Your task to perform on an android device: Open the Play Movies app and select the watchlist tab. Image 0: 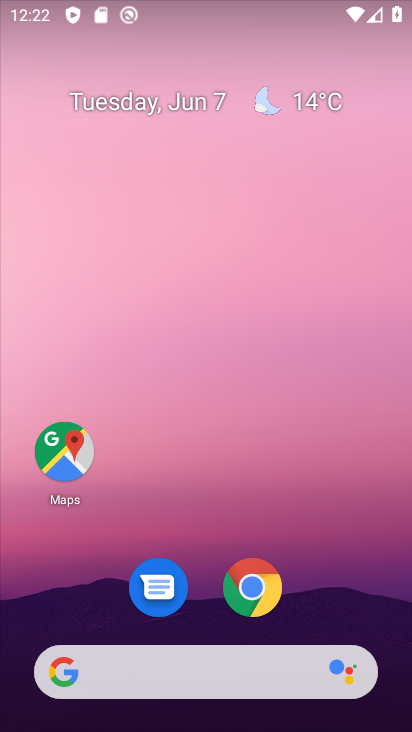
Step 0: drag from (250, 670) to (296, 207)
Your task to perform on an android device: Open the Play Movies app and select the watchlist tab. Image 1: 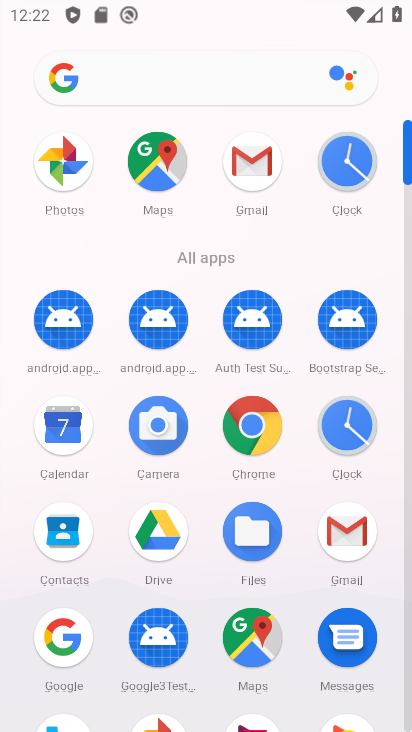
Step 1: drag from (253, 529) to (256, 180)
Your task to perform on an android device: Open the Play Movies app and select the watchlist tab. Image 2: 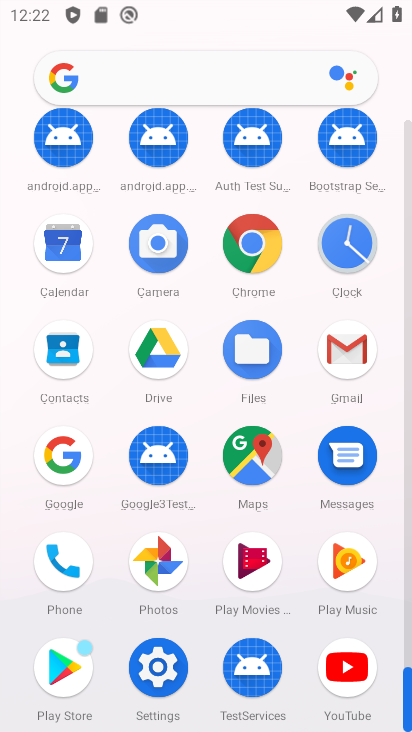
Step 2: click (248, 575)
Your task to perform on an android device: Open the Play Movies app and select the watchlist tab. Image 3: 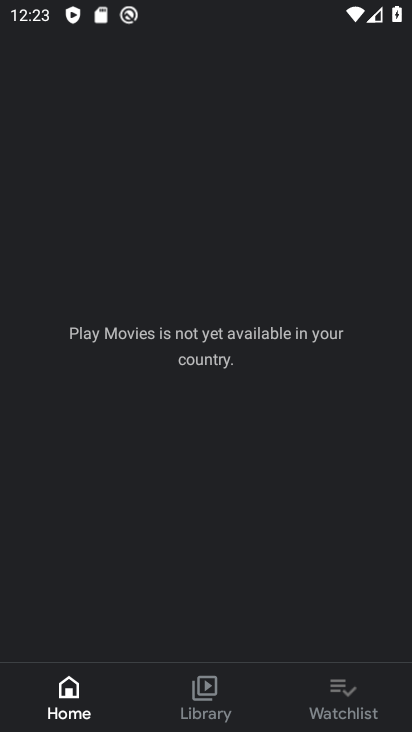
Step 3: click (342, 690)
Your task to perform on an android device: Open the Play Movies app and select the watchlist tab. Image 4: 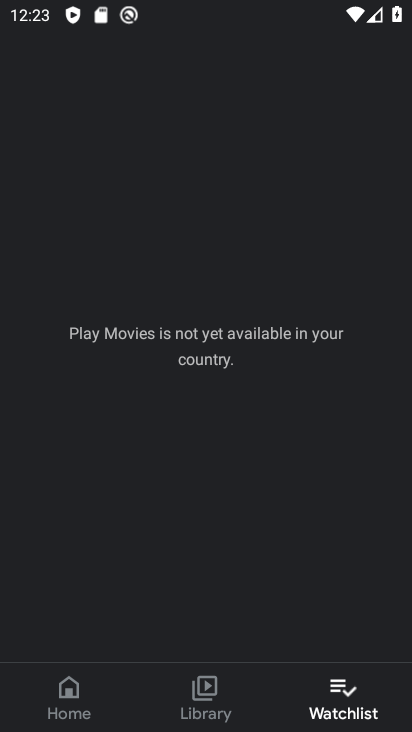
Step 4: task complete